Your task to perform on an android device: Open the calendar and show me this week's events Image 0: 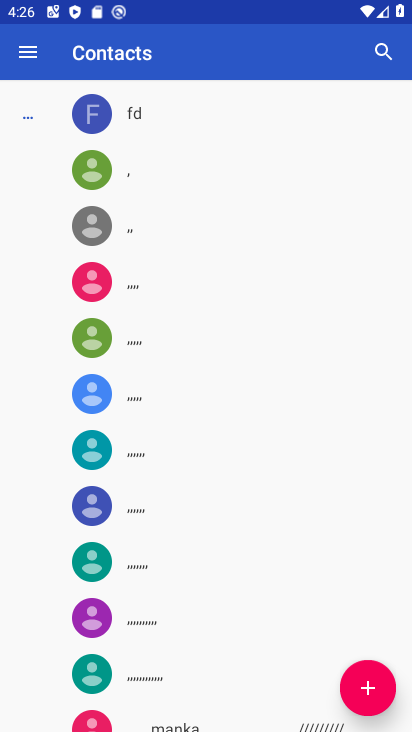
Step 0: press home button
Your task to perform on an android device: Open the calendar and show me this week's events Image 1: 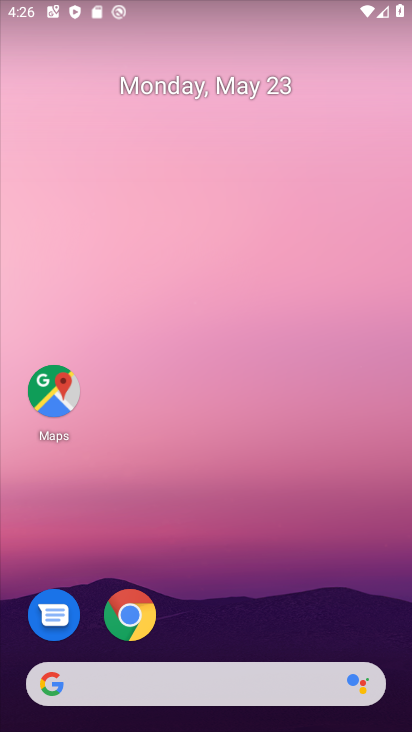
Step 1: drag from (261, 556) to (294, 102)
Your task to perform on an android device: Open the calendar and show me this week's events Image 2: 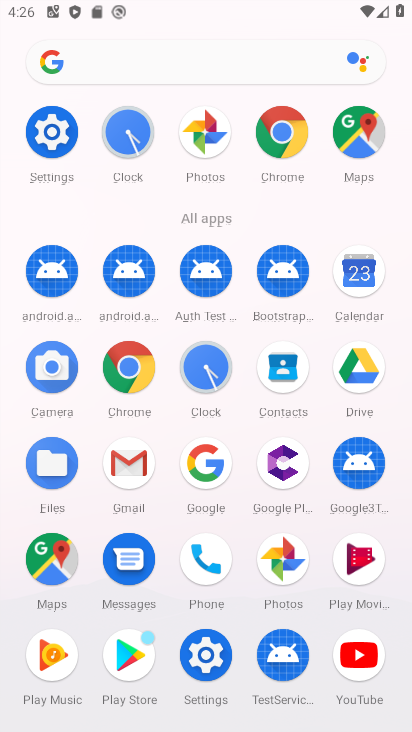
Step 2: click (354, 268)
Your task to perform on an android device: Open the calendar and show me this week's events Image 3: 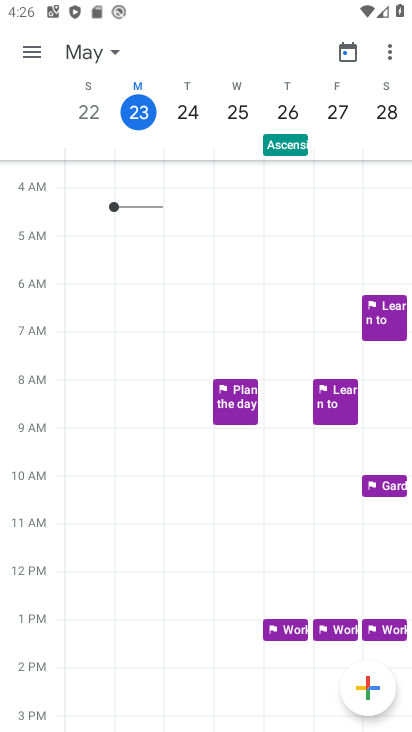
Step 3: task complete